Your task to perform on an android device: set the timer Image 0: 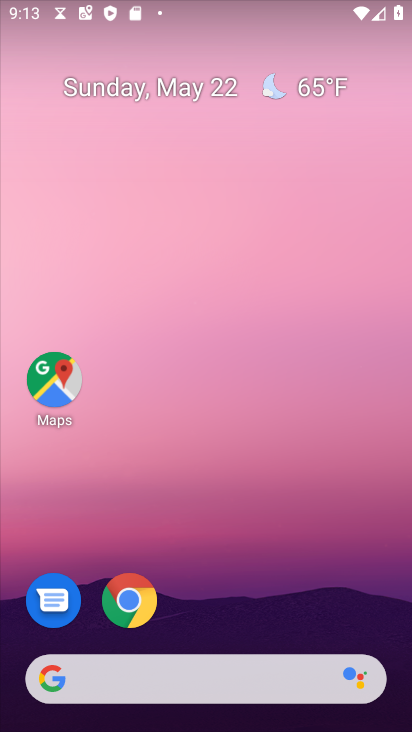
Step 0: drag from (266, 618) to (213, 1)
Your task to perform on an android device: set the timer Image 1: 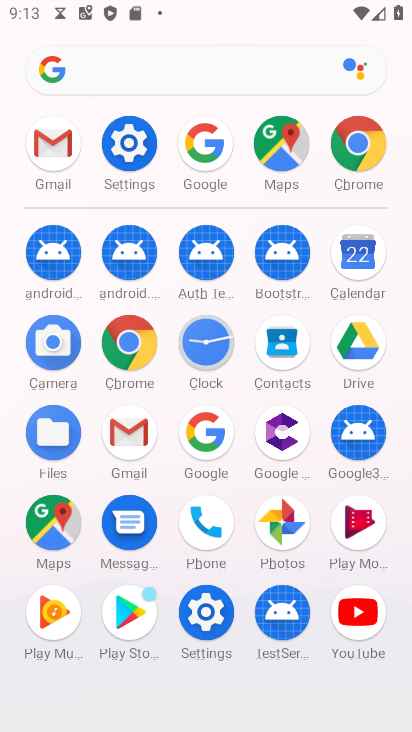
Step 1: click (202, 383)
Your task to perform on an android device: set the timer Image 2: 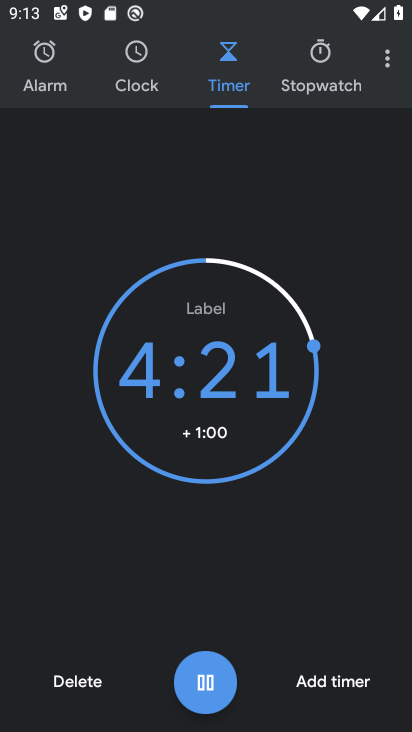
Step 2: click (55, 681)
Your task to perform on an android device: set the timer Image 3: 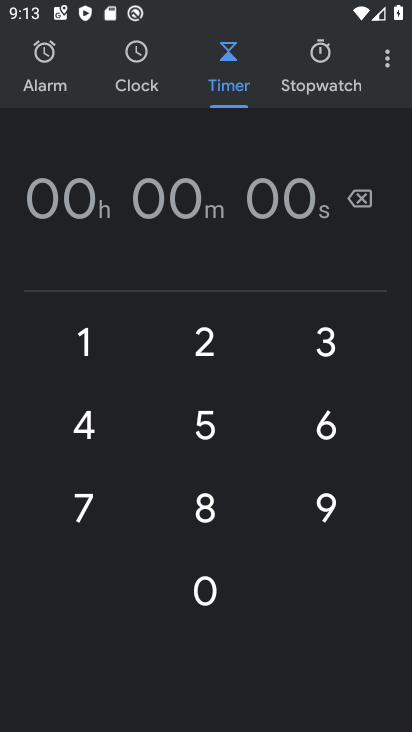
Step 3: click (211, 431)
Your task to perform on an android device: set the timer Image 4: 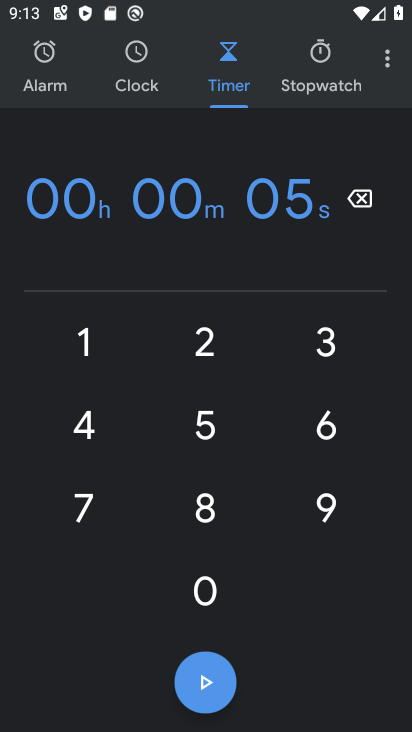
Step 4: click (202, 600)
Your task to perform on an android device: set the timer Image 5: 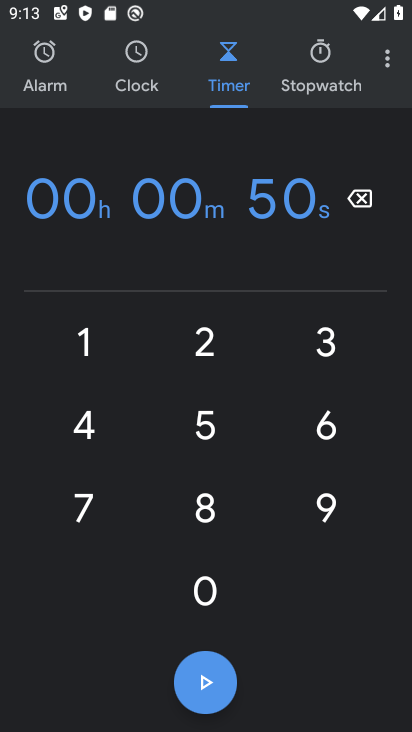
Step 5: click (203, 342)
Your task to perform on an android device: set the timer Image 6: 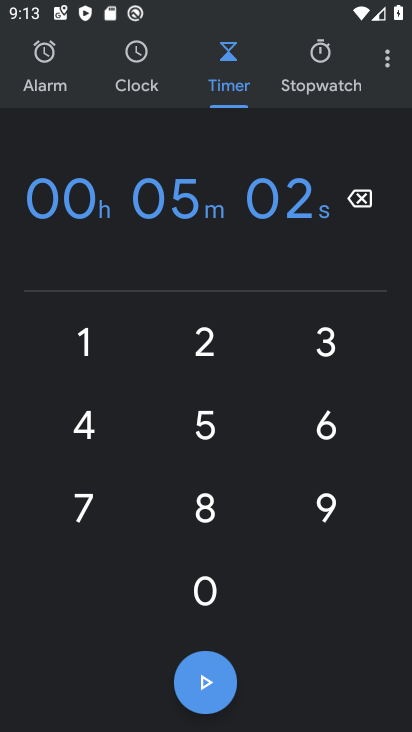
Step 6: click (213, 595)
Your task to perform on an android device: set the timer Image 7: 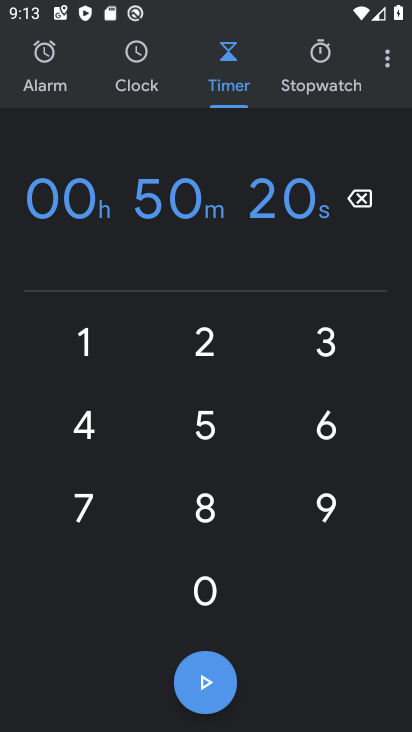
Step 7: click (189, 678)
Your task to perform on an android device: set the timer Image 8: 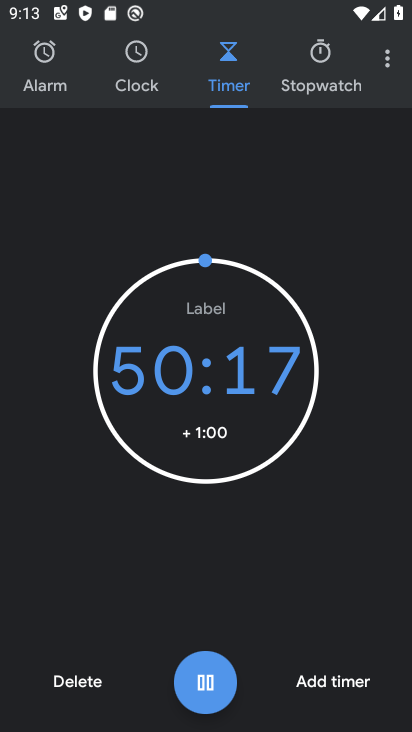
Step 8: click (361, 679)
Your task to perform on an android device: set the timer Image 9: 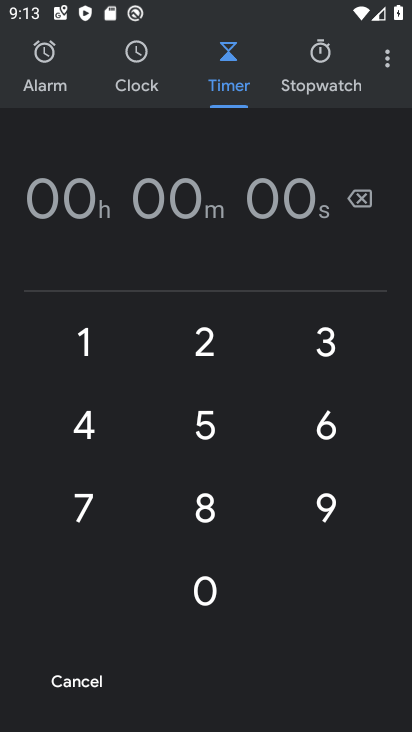
Step 9: task complete